Your task to perform on an android device: change the clock style Image 0: 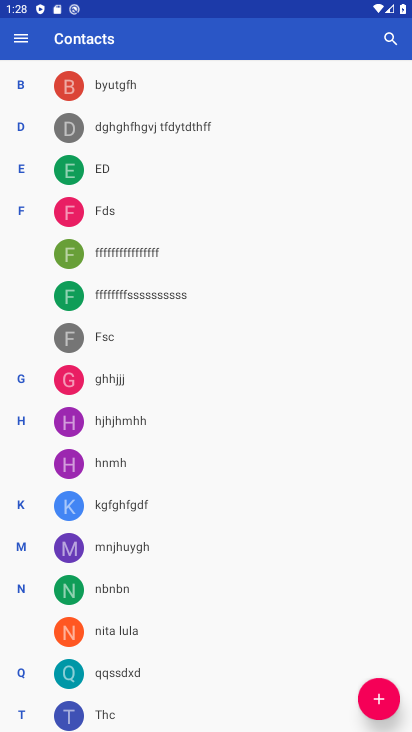
Step 0: press home button
Your task to perform on an android device: change the clock style Image 1: 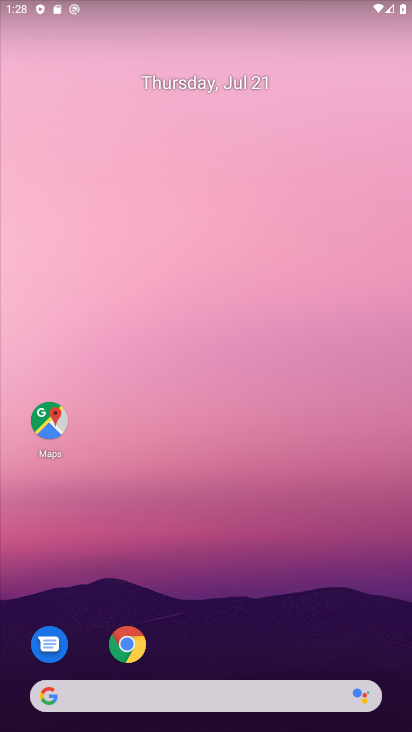
Step 1: drag from (230, 619) to (243, 404)
Your task to perform on an android device: change the clock style Image 2: 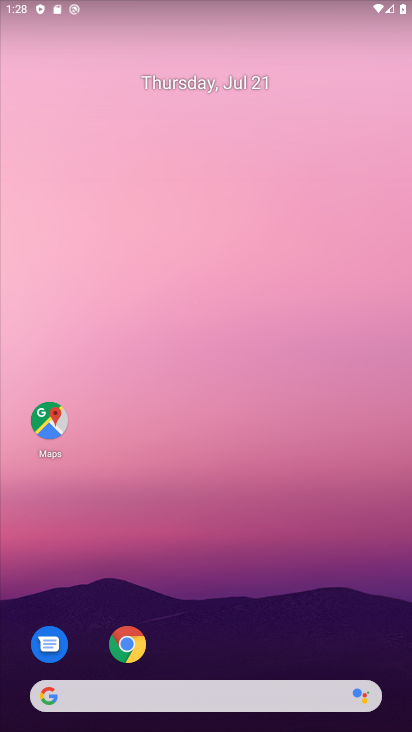
Step 2: drag from (270, 582) to (306, 2)
Your task to perform on an android device: change the clock style Image 3: 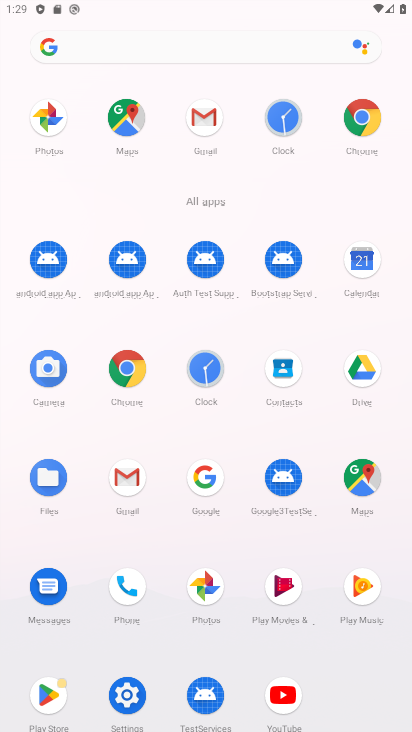
Step 3: click (283, 125)
Your task to perform on an android device: change the clock style Image 4: 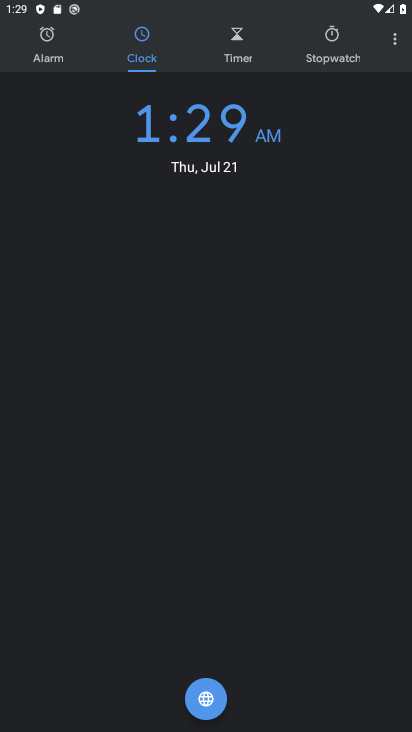
Step 4: click (388, 38)
Your task to perform on an android device: change the clock style Image 5: 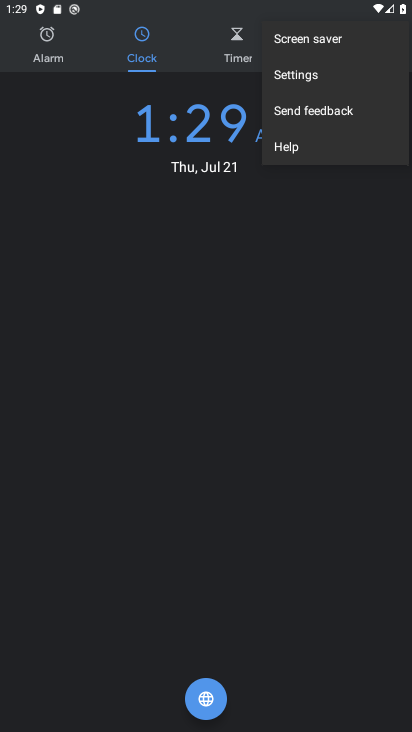
Step 5: click (332, 72)
Your task to perform on an android device: change the clock style Image 6: 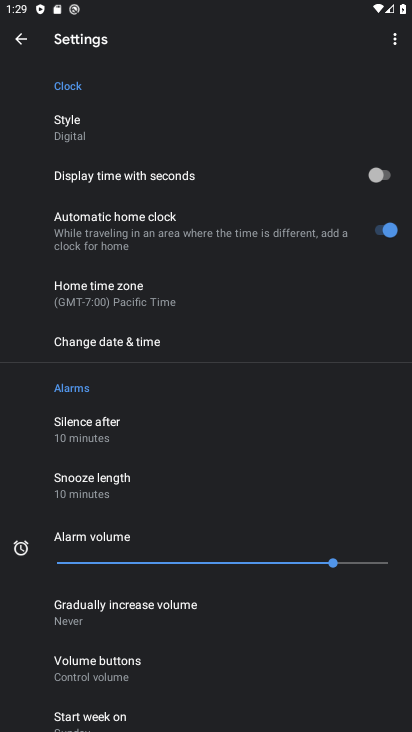
Step 6: click (115, 131)
Your task to perform on an android device: change the clock style Image 7: 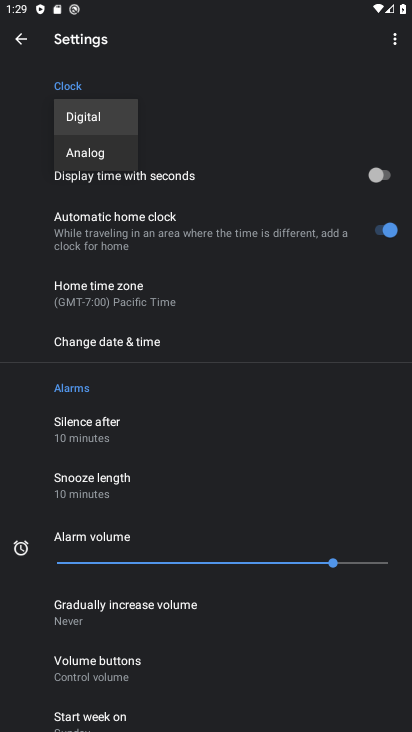
Step 7: click (114, 146)
Your task to perform on an android device: change the clock style Image 8: 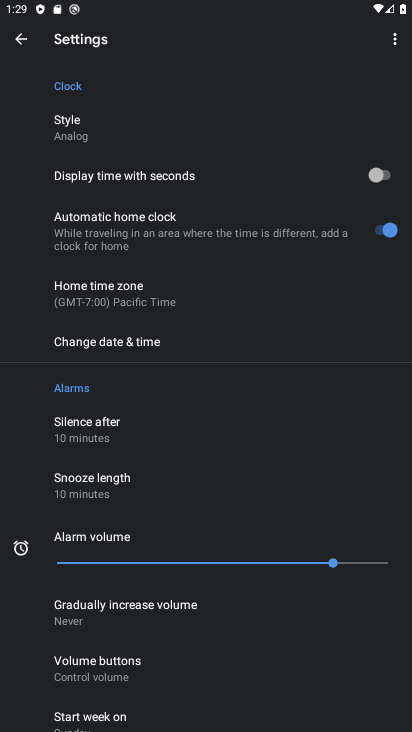
Step 8: task complete